Your task to perform on an android device: turn off picture-in-picture Image 0: 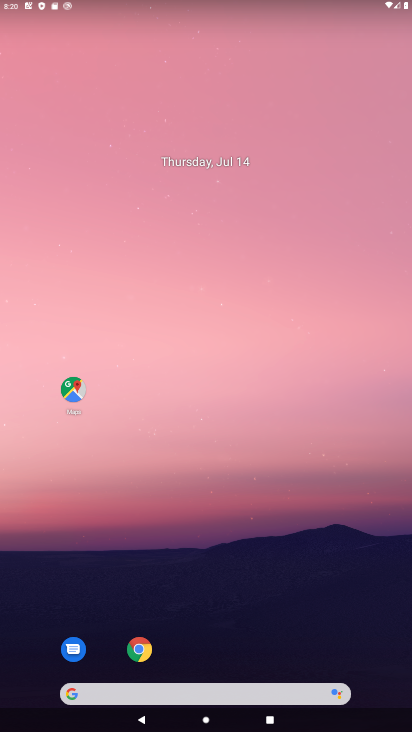
Step 0: click (147, 659)
Your task to perform on an android device: turn off picture-in-picture Image 1: 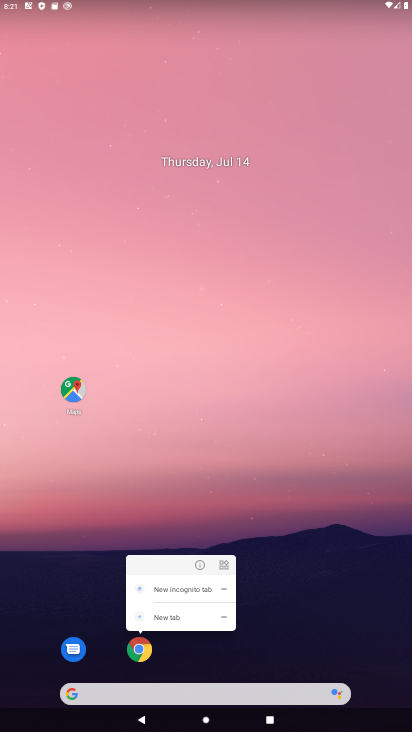
Step 1: click (195, 558)
Your task to perform on an android device: turn off picture-in-picture Image 2: 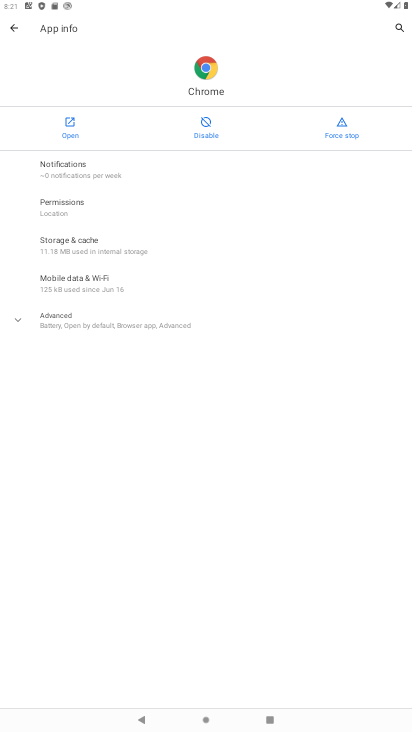
Step 2: click (21, 317)
Your task to perform on an android device: turn off picture-in-picture Image 3: 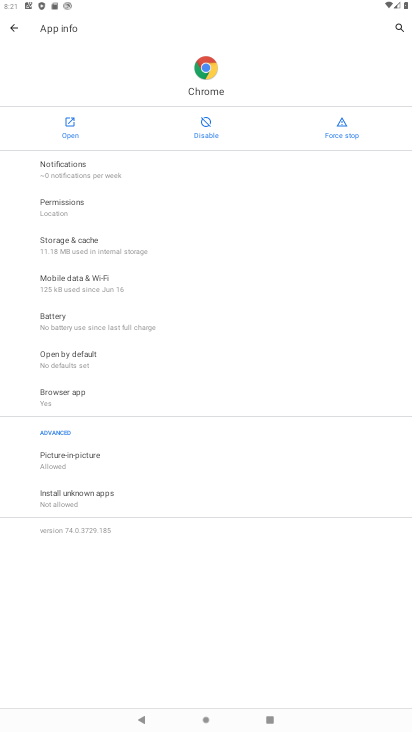
Step 3: click (117, 463)
Your task to perform on an android device: turn off picture-in-picture Image 4: 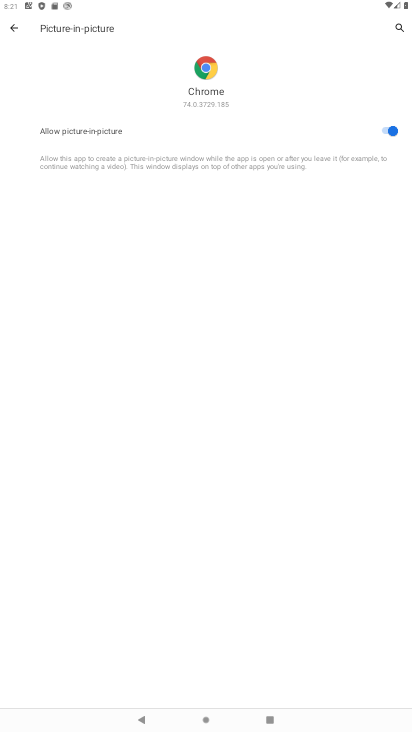
Step 4: click (393, 129)
Your task to perform on an android device: turn off picture-in-picture Image 5: 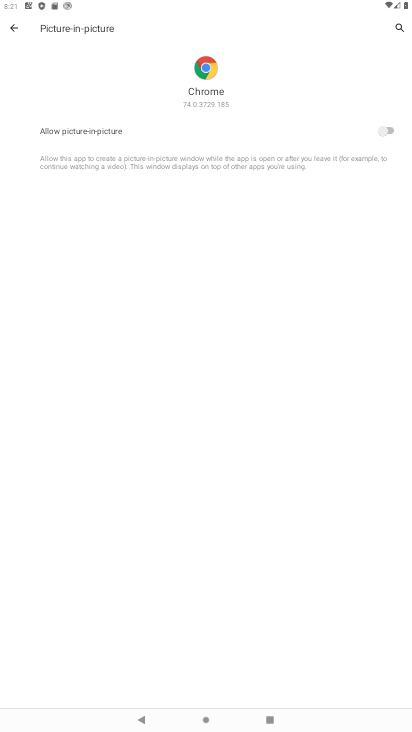
Step 5: task complete